Your task to perform on an android device: toggle translation in the chrome app Image 0: 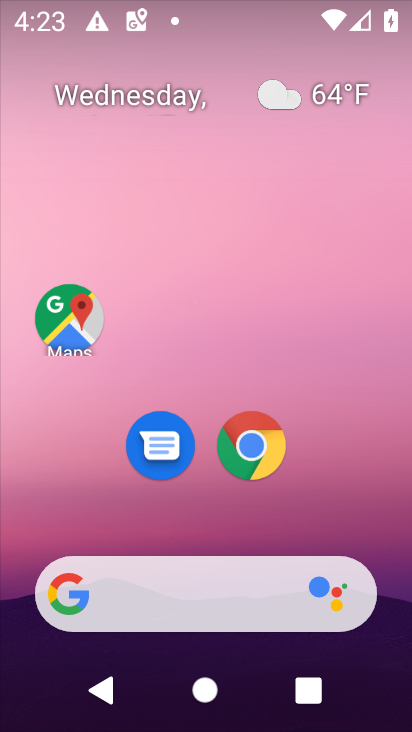
Step 0: click (259, 443)
Your task to perform on an android device: toggle translation in the chrome app Image 1: 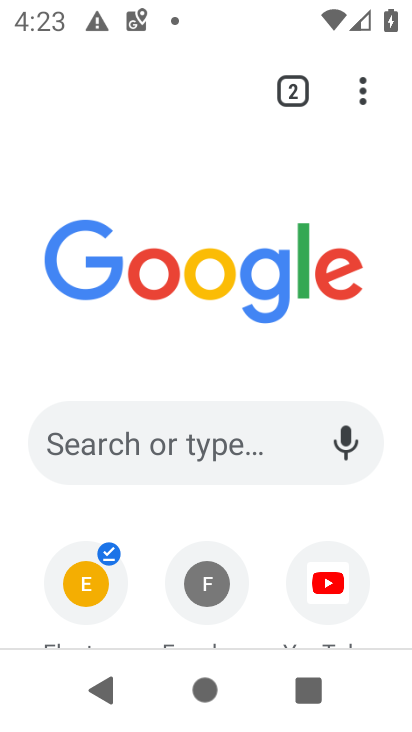
Step 1: drag from (367, 64) to (193, 464)
Your task to perform on an android device: toggle translation in the chrome app Image 2: 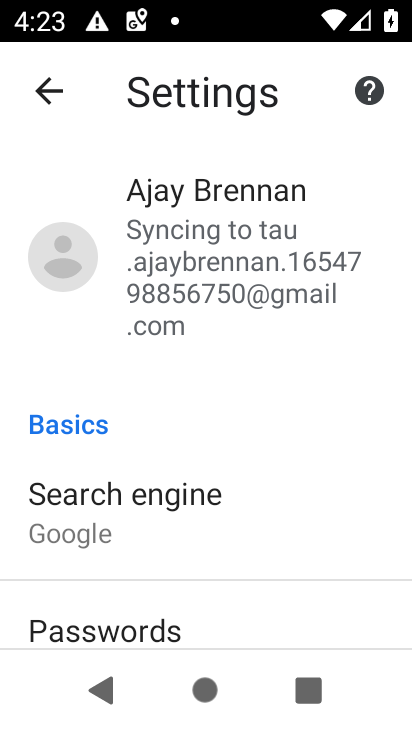
Step 2: drag from (268, 672) to (286, 191)
Your task to perform on an android device: toggle translation in the chrome app Image 3: 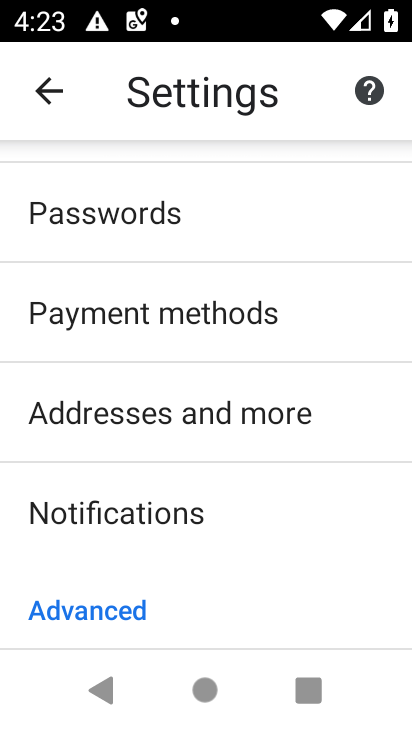
Step 3: drag from (273, 549) to (287, 143)
Your task to perform on an android device: toggle translation in the chrome app Image 4: 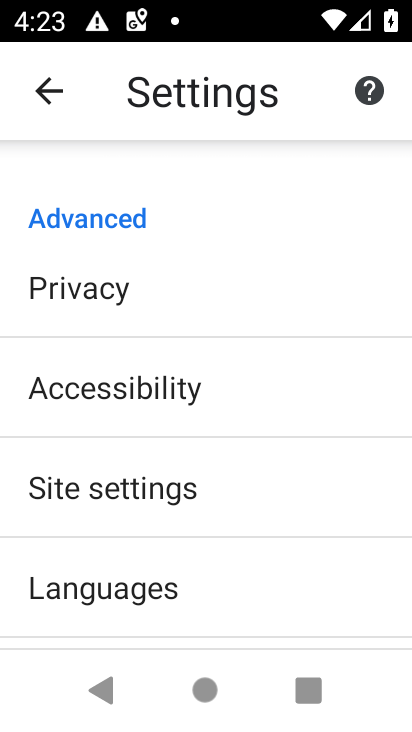
Step 4: drag from (234, 530) to (285, 209)
Your task to perform on an android device: toggle translation in the chrome app Image 5: 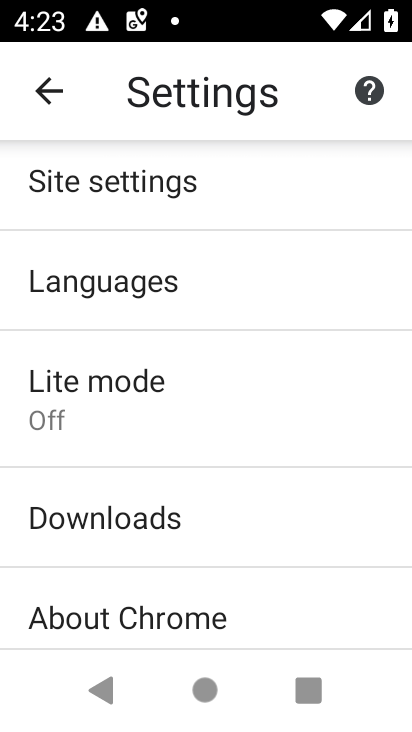
Step 5: click (188, 399)
Your task to perform on an android device: toggle translation in the chrome app Image 6: 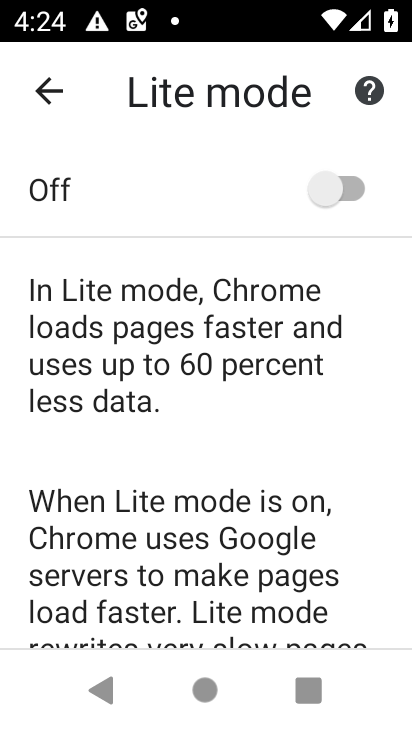
Step 6: task complete